Your task to perform on an android device: Open Google Maps Image 0: 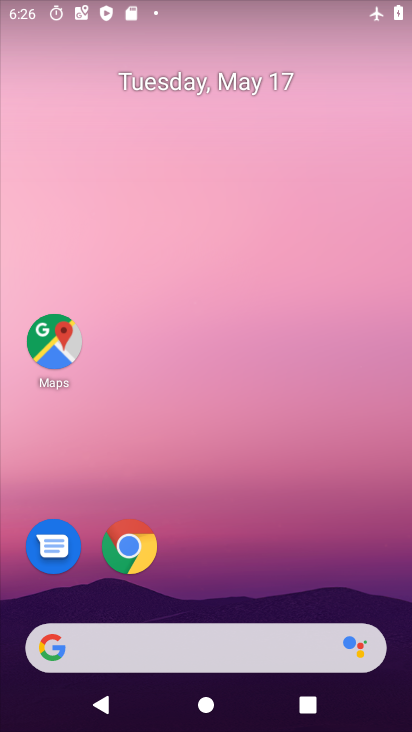
Step 0: drag from (262, 190) to (264, 148)
Your task to perform on an android device: Open Google Maps Image 1: 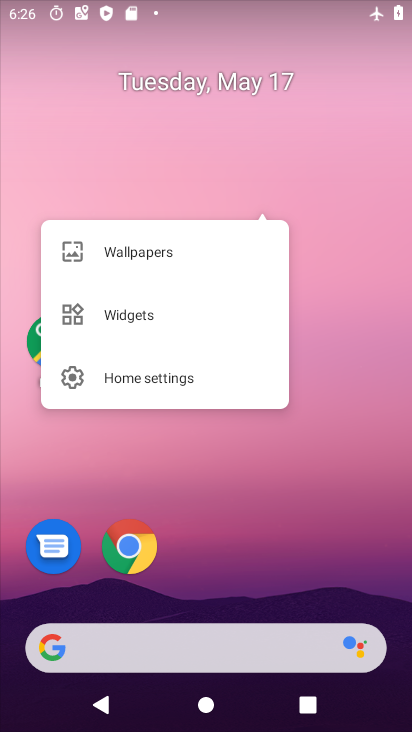
Step 1: click (237, 504)
Your task to perform on an android device: Open Google Maps Image 2: 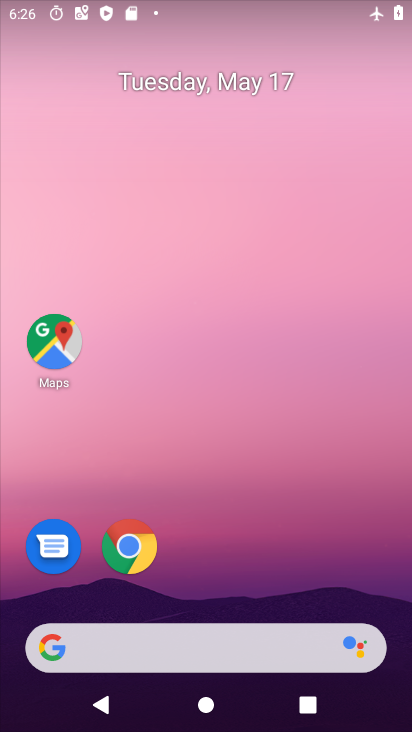
Step 2: drag from (231, 466) to (262, 40)
Your task to perform on an android device: Open Google Maps Image 3: 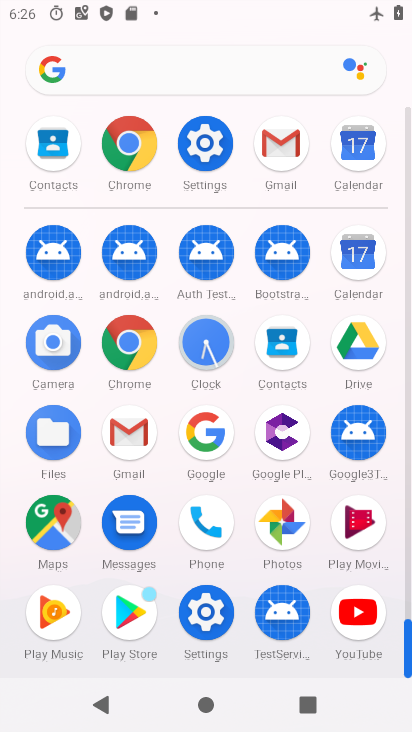
Step 3: click (50, 517)
Your task to perform on an android device: Open Google Maps Image 4: 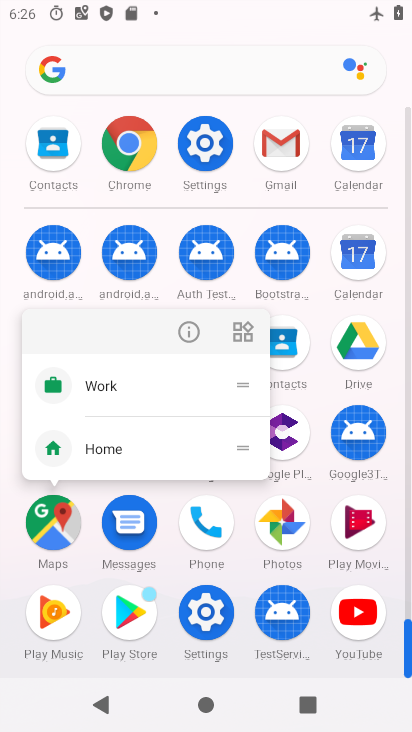
Step 4: click (37, 524)
Your task to perform on an android device: Open Google Maps Image 5: 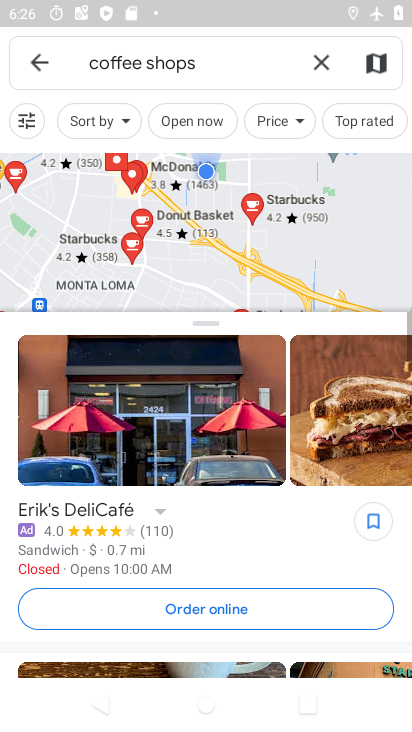
Step 5: task complete